Your task to perform on an android device: check data usage Image 0: 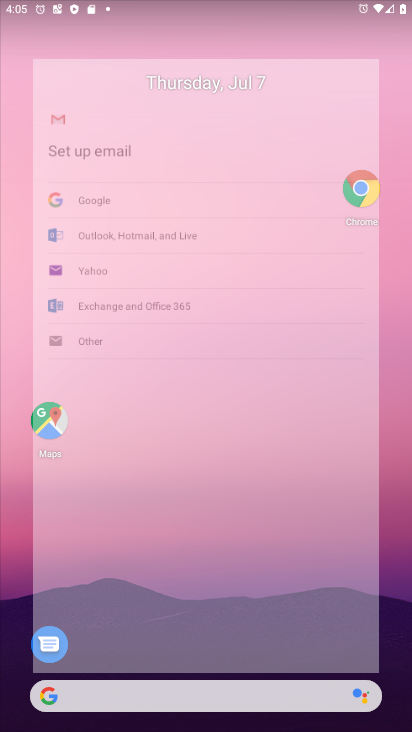
Step 0: press home button
Your task to perform on an android device: check data usage Image 1: 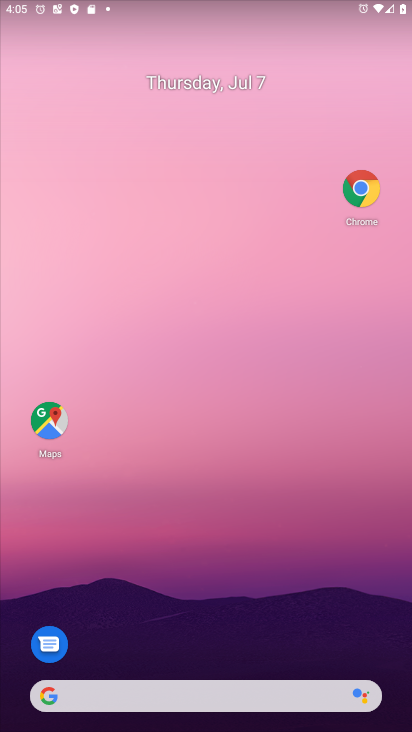
Step 1: drag from (322, 15) to (229, 491)
Your task to perform on an android device: check data usage Image 2: 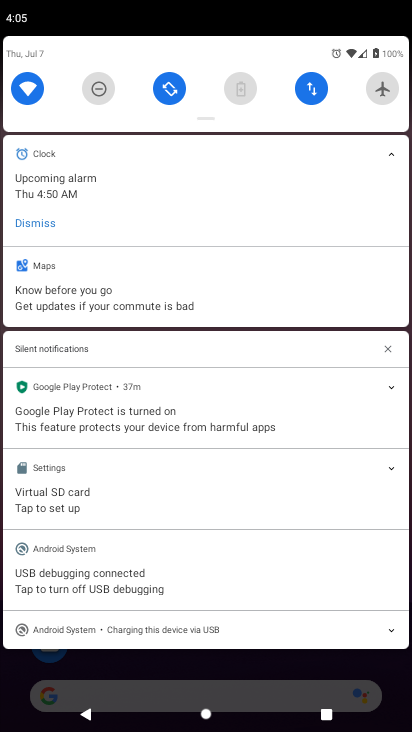
Step 2: click (321, 83)
Your task to perform on an android device: check data usage Image 3: 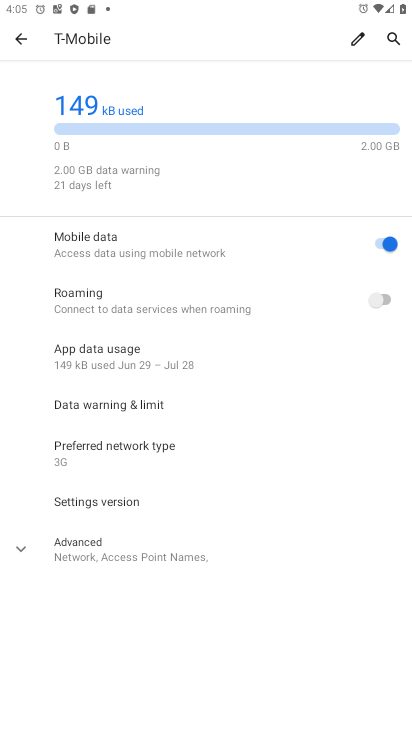
Step 3: task complete